Your task to perform on an android device: turn off translation in the chrome app Image 0: 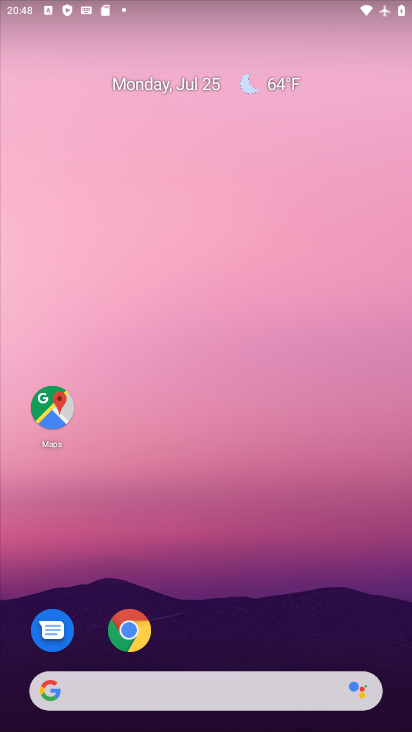
Step 0: click (130, 630)
Your task to perform on an android device: turn off translation in the chrome app Image 1: 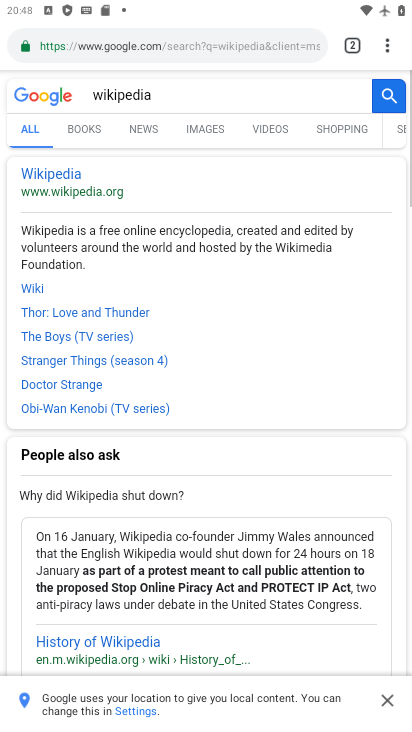
Step 1: click (385, 48)
Your task to perform on an android device: turn off translation in the chrome app Image 2: 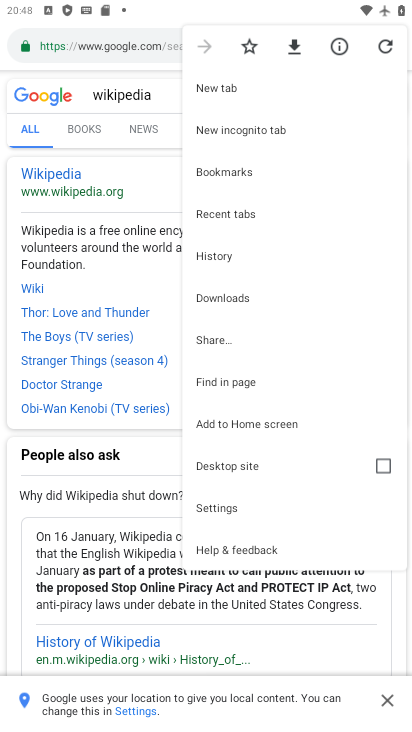
Step 2: click (224, 512)
Your task to perform on an android device: turn off translation in the chrome app Image 3: 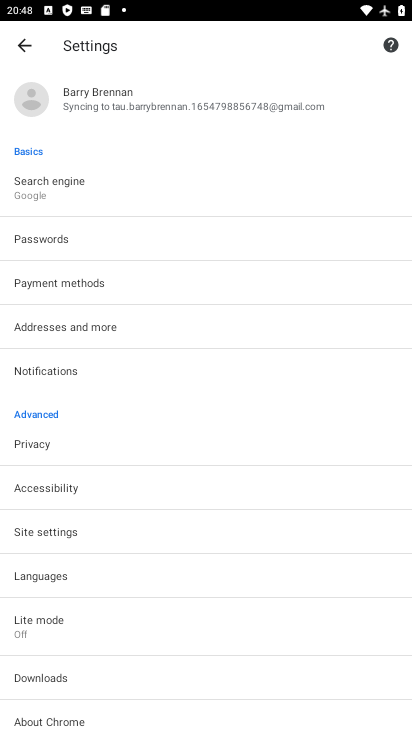
Step 3: click (31, 579)
Your task to perform on an android device: turn off translation in the chrome app Image 4: 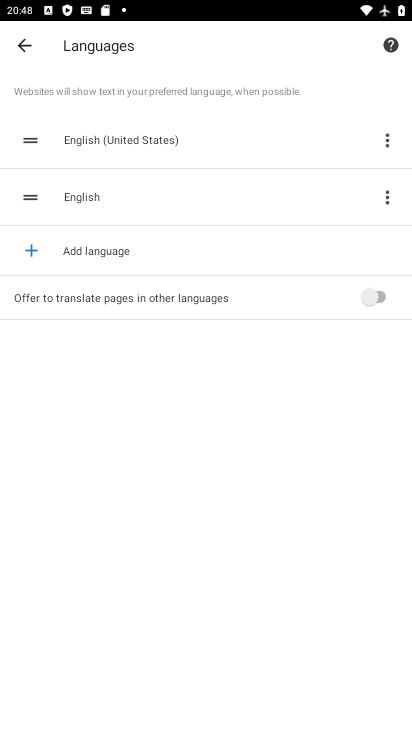
Step 4: task complete